Your task to perform on an android device: Open Amazon Image 0: 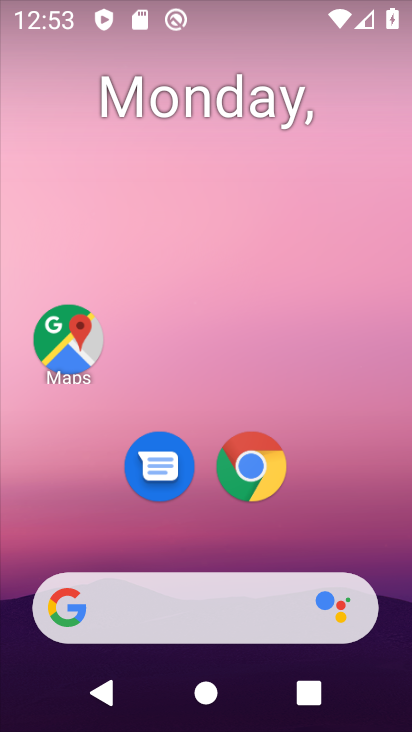
Step 0: click (238, 480)
Your task to perform on an android device: Open Amazon Image 1: 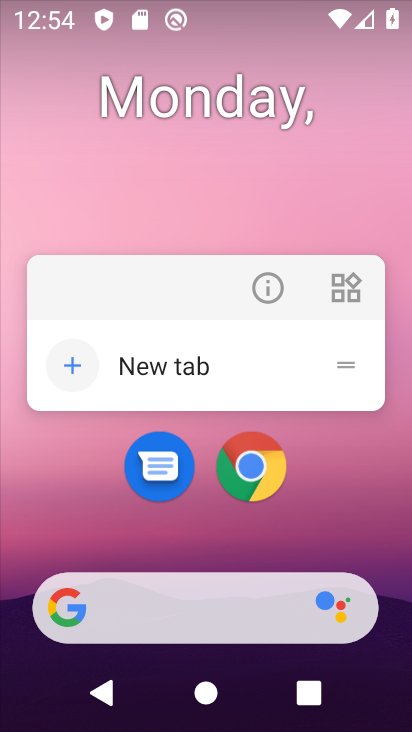
Step 1: click (258, 454)
Your task to perform on an android device: Open Amazon Image 2: 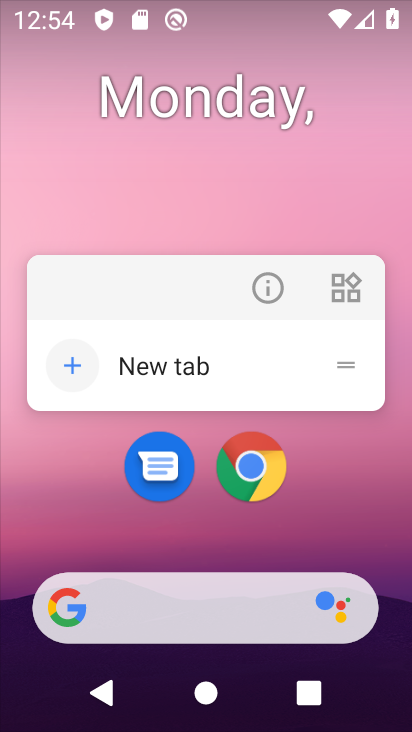
Step 2: click (277, 462)
Your task to perform on an android device: Open Amazon Image 3: 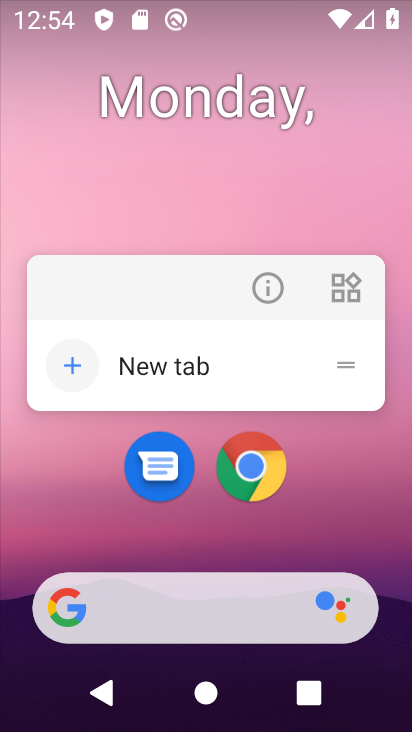
Step 3: click (250, 477)
Your task to perform on an android device: Open Amazon Image 4: 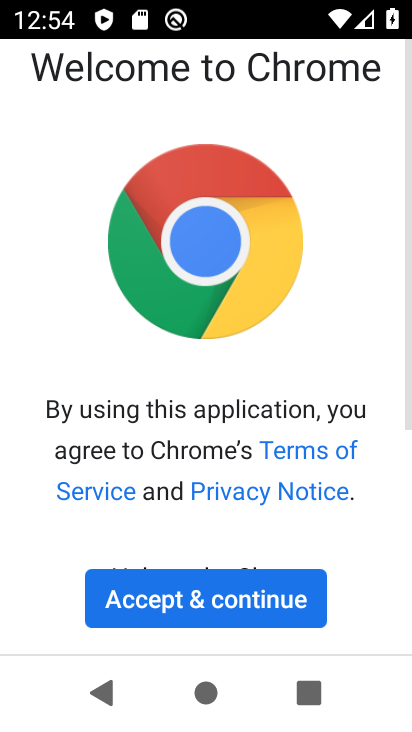
Step 4: click (237, 609)
Your task to perform on an android device: Open Amazon Image 5: 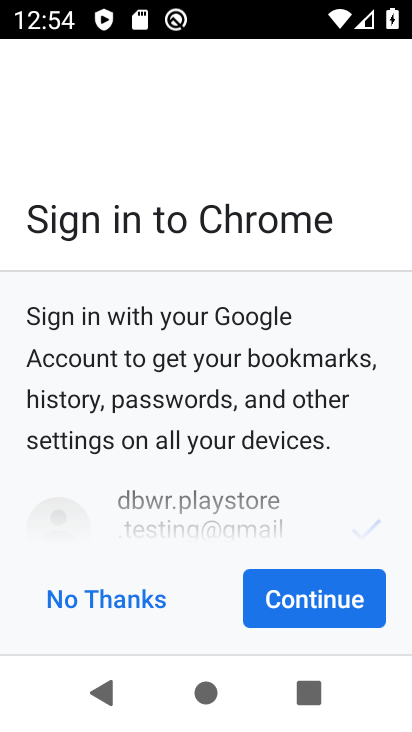
Step 5: click (328, 592)
Your task to perform on an android device: Open Amazon Image 6: 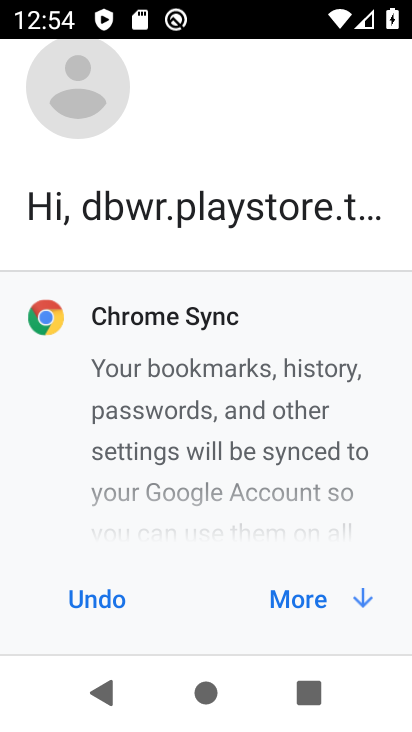
Step 6: click (296, 583)
Your task to perform on an android device: Open Amazon Image 7: 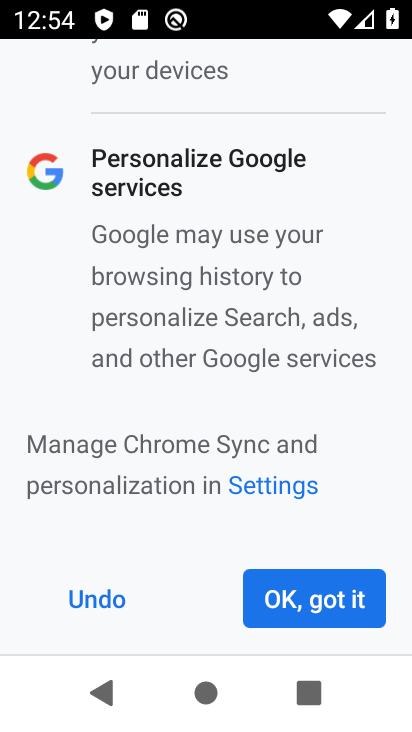
Step 7: click (294, 584)
Your task to perform on an android device: Open Amazon Image 8: 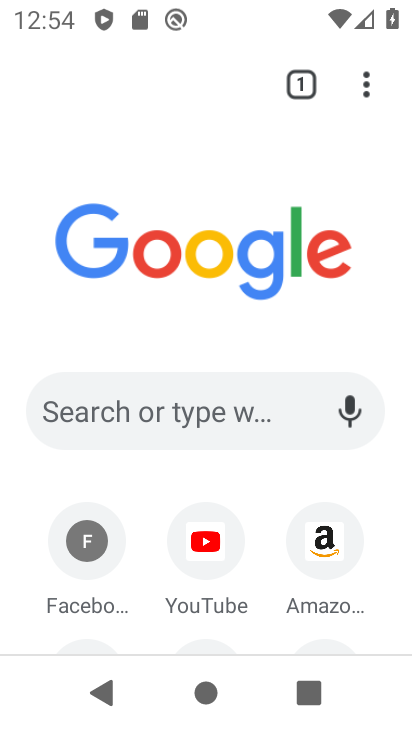
Step 8: click (330, 545)
Your task to perform on an android device: Open Amazon Image 9: 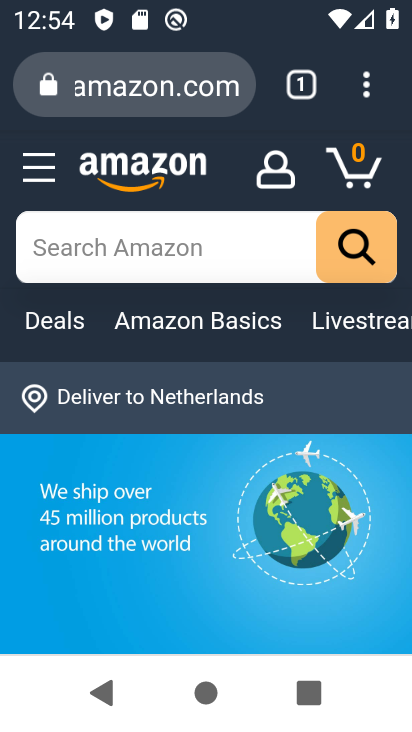
Step 9: task complete